Your task to perform on an android device: What is the recent news? Image 0: 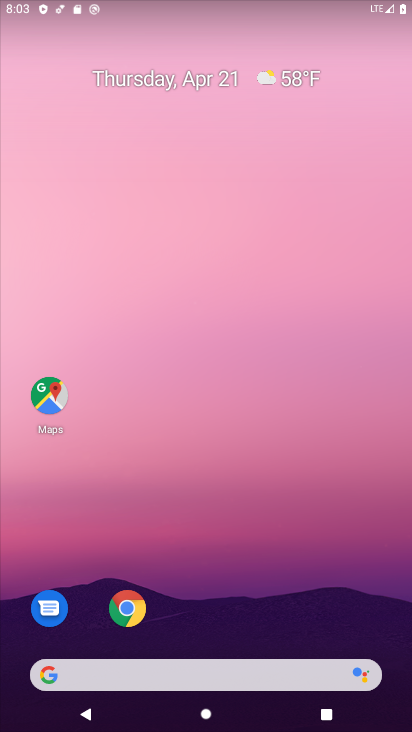
Step 0: click (51, 675)
Your task to perform on an android device: What is the recent news? Image 1: 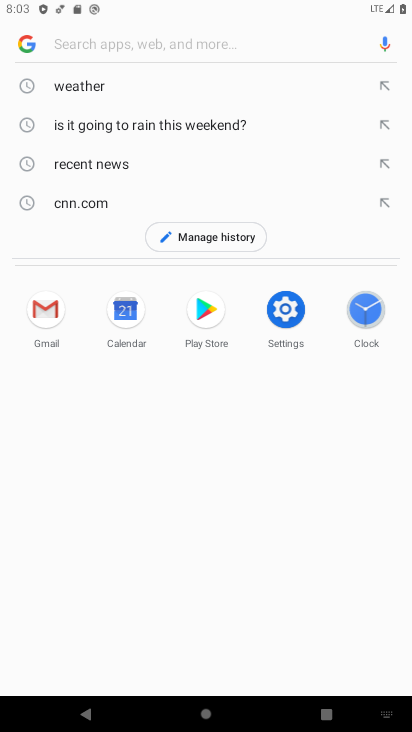
Step 1: click (25, 39)
Your task to perform on an android device: What is the recent news? Image 2: 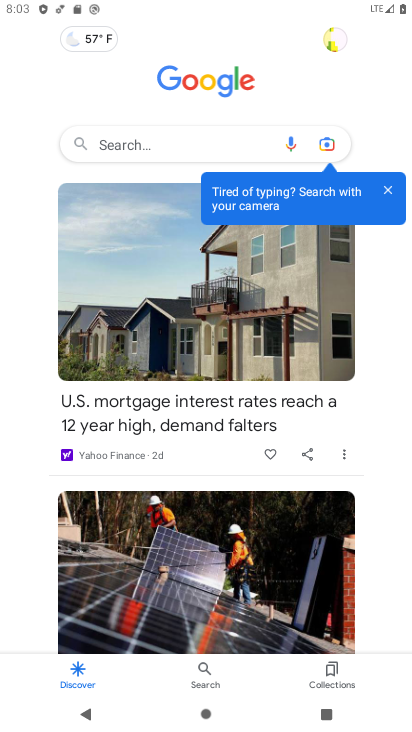
Step 2: task complete